Your task to perform on an android device: Show me the alarms in the clock app Image 0: 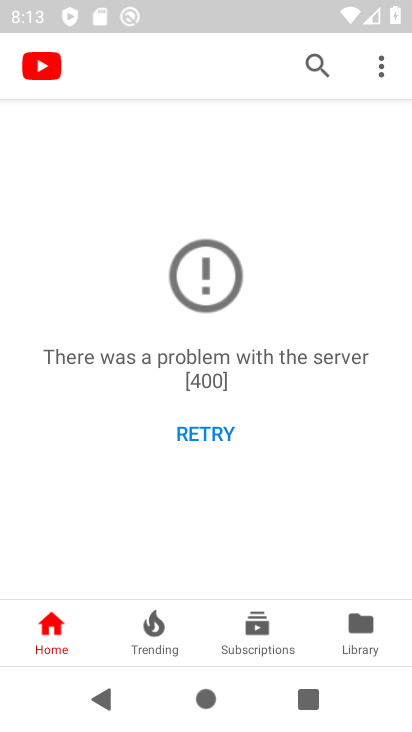
Step 0: press back button
Your task to perform on an android device: Show me the alarms in the clock app Image 1: 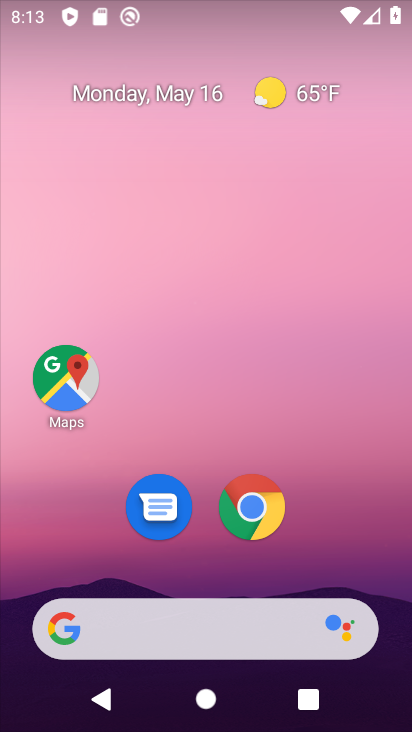
Step 1: click (218, 616)
Your task to perform on an android device: Show me the alarms in the clock app Image 2: 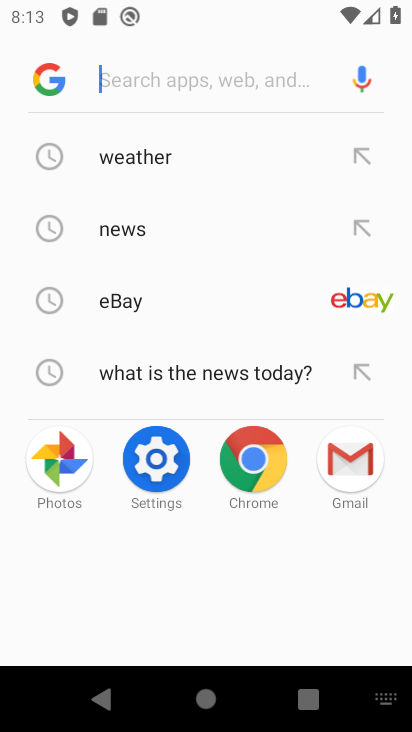
Step 2: press home button
Your task to perform on an android device: Show me the alarms in the clock app Image 3: 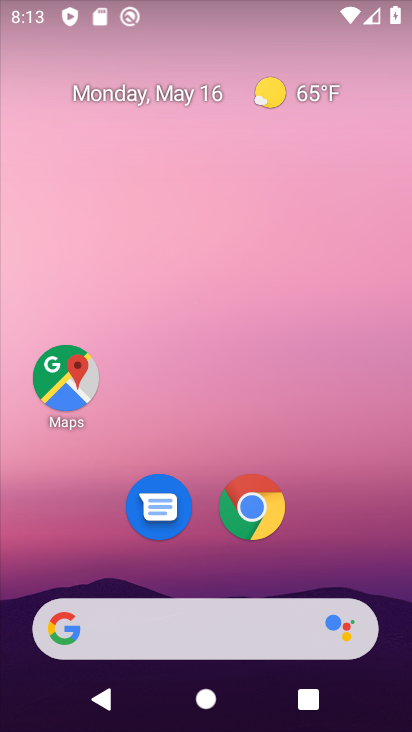
Step 3: drag from (178, 581) to (147, 24)
Your task to perform on an android device: Show me the alarms in the clock app Image 4: 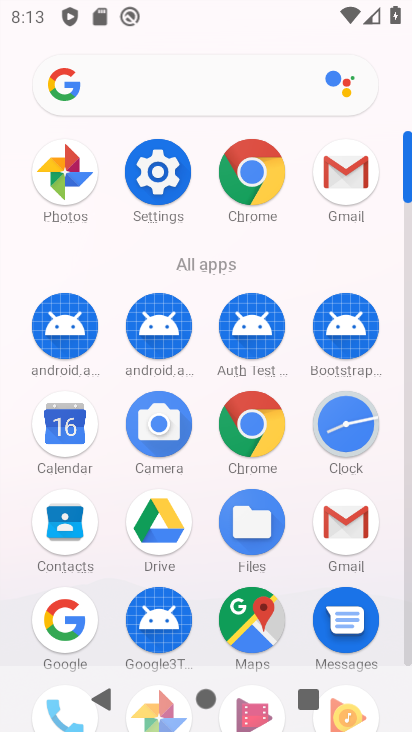
Step 4: click (363, 423)
Your task to perform on an android device: Show me the alarms in the clock app Image 5: 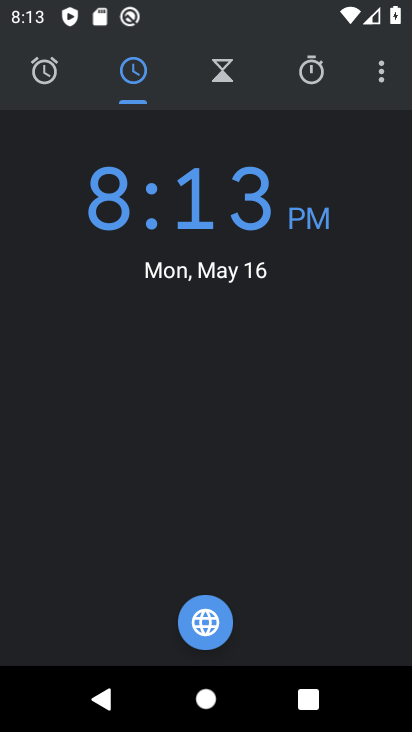
Step 5: click (57, 85)
Your task to perform on an android device: Show me the alarms in the clock app Image 6: 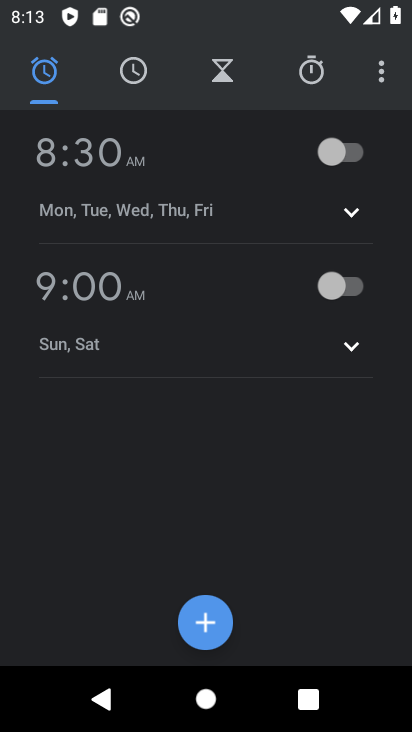
Step 6: task complete